Your task to perform on an android device: turn on priority inbox in the gmail app Image 0: 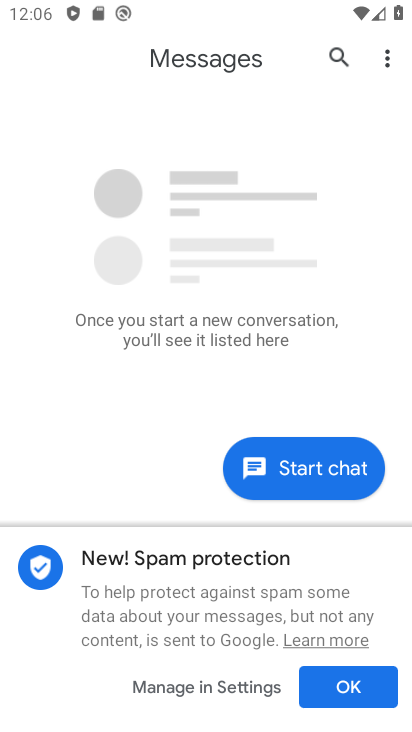
Step 0: press home button
Your task to perform on an android device: turn on priority inbox in the gmail app Image 1: 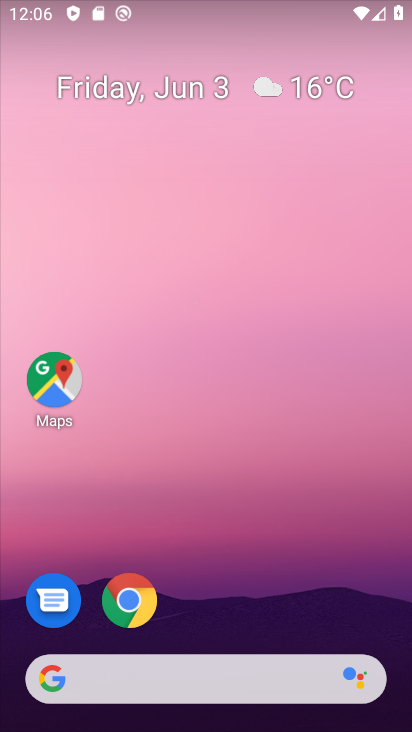
Step 1: drag from (356, 558) to (351, 187)
Your task to perform on an android device: turn on priority inbox in the gmail app Image 2: 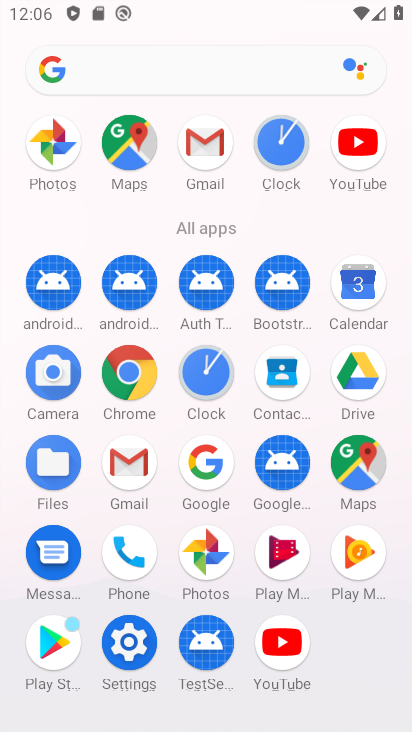
Step 2: click (216, 137)
Your task to perform on an android device: turn on priority inbox in the gmail app Image 3: 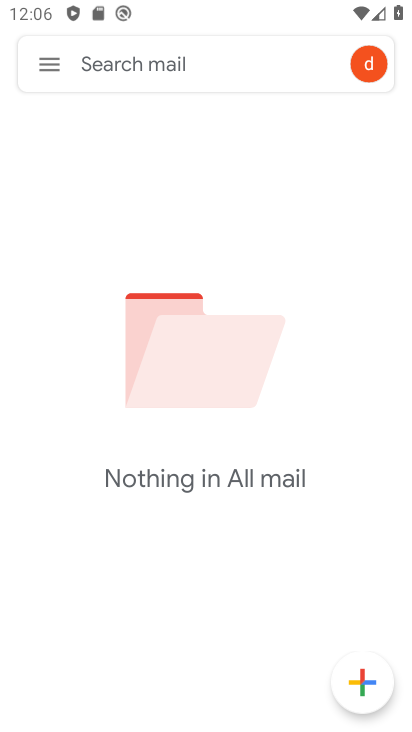
Step 3: click (44, 62)
Your task to perform on an android device: turn on priority inbox in the gmail app Image 4: 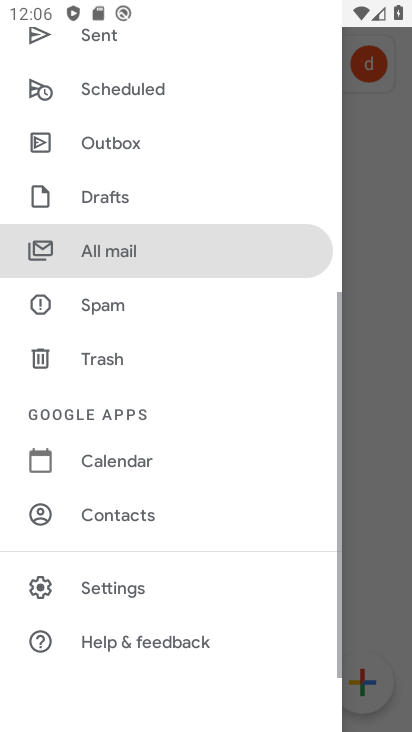
Step 4: drag from (218, 557) to (275, 196)
Your task to perform on an android device: turn on priority inbox in the gmail app Image 5: 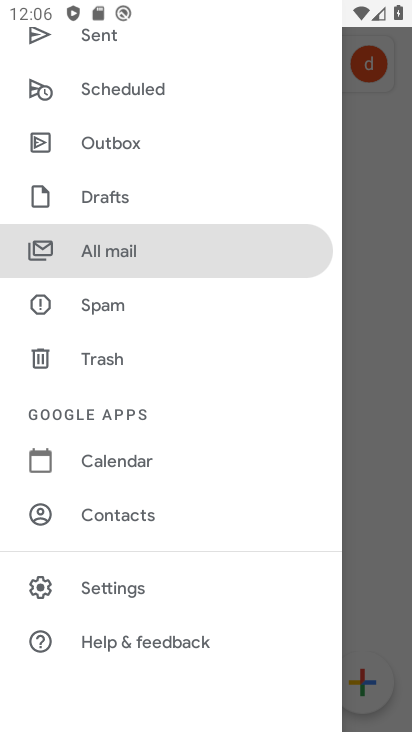
Step 5: click (125, 585)
Your task to perform on an android device: turn on priority inbox in the gmail app Image 6: 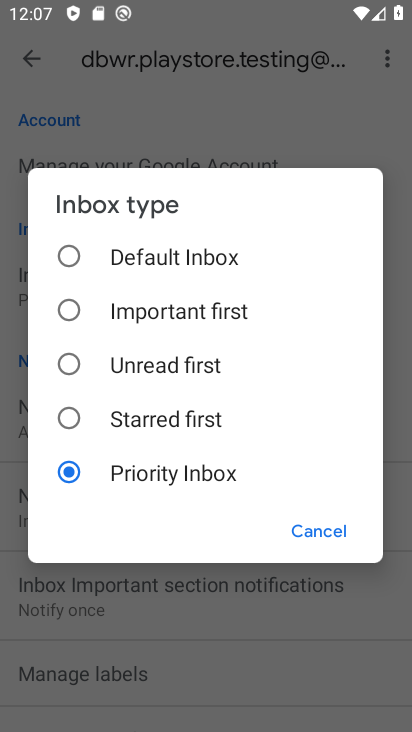
Step 6: task complete